Your task to perform on an android device: See recent photos Image 0: 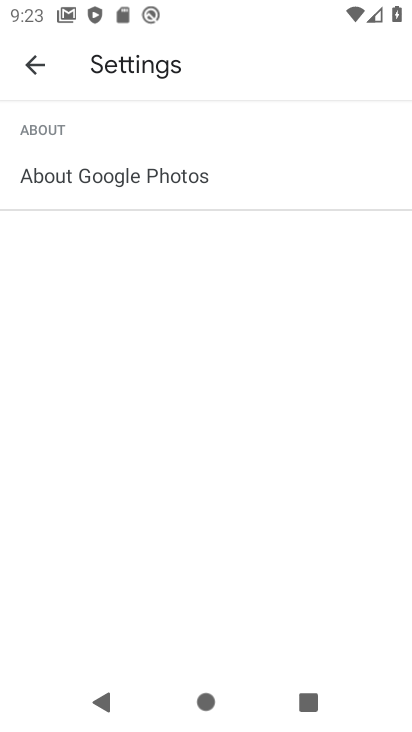
Step 0: press home button
Your task to perform on an android device: See recent photos Image 1: 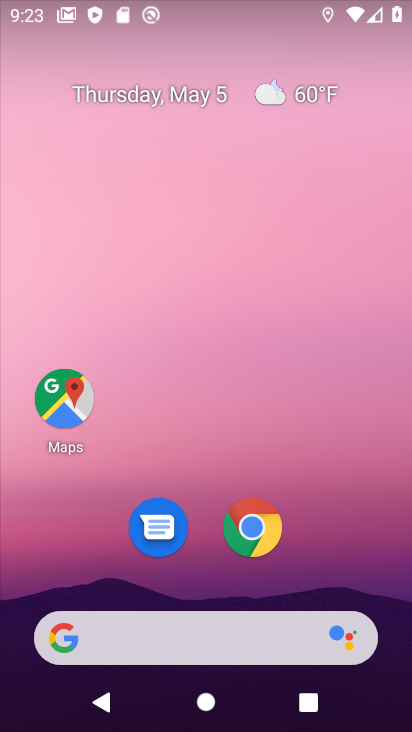
Step 1: drag from (146, 603) to (229, 137)
Your task to perform on an android device: See recent photos Image 2: 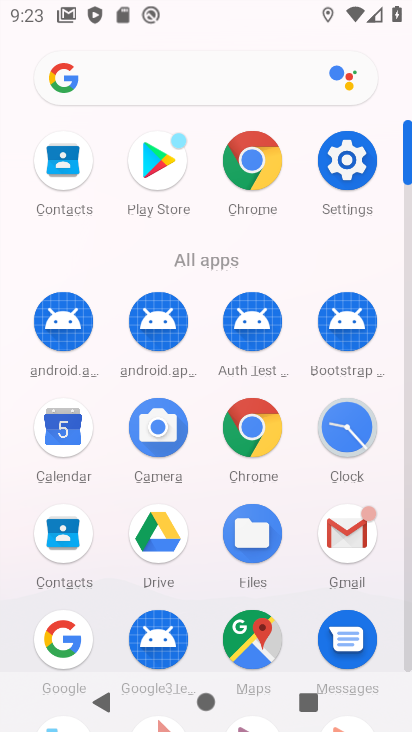
Step 2: drag from (187, 634) to (229, 388)
Your task to perform on an android device: See recent photos Image 3: 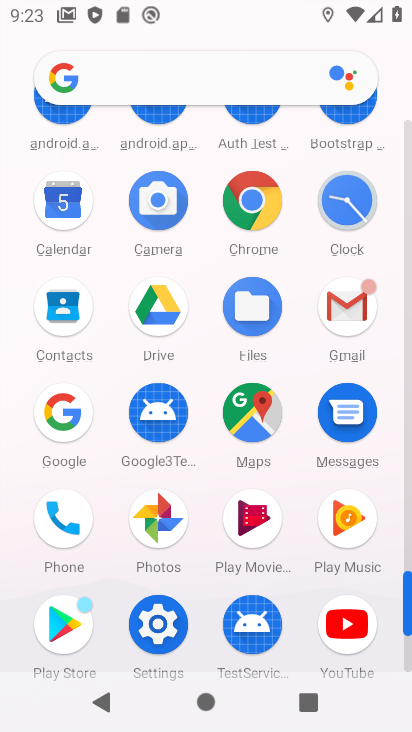
Step 3: click (156, 528)
Your task to perform on an android device: See recent photos Image 4: 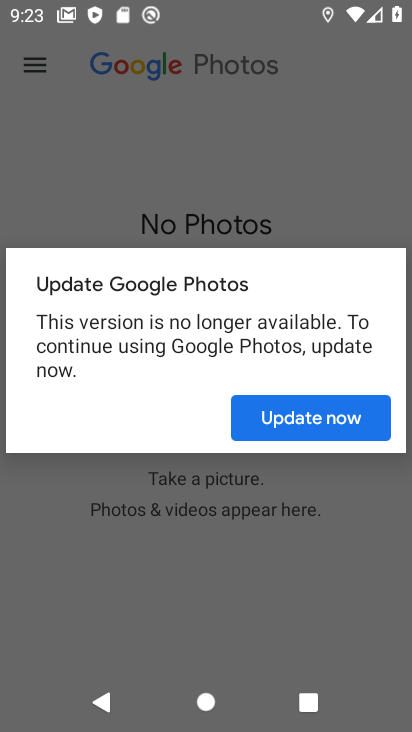
Step 4: click (317, 426)
Your task to perform on an android device: See recent photos Image 5: 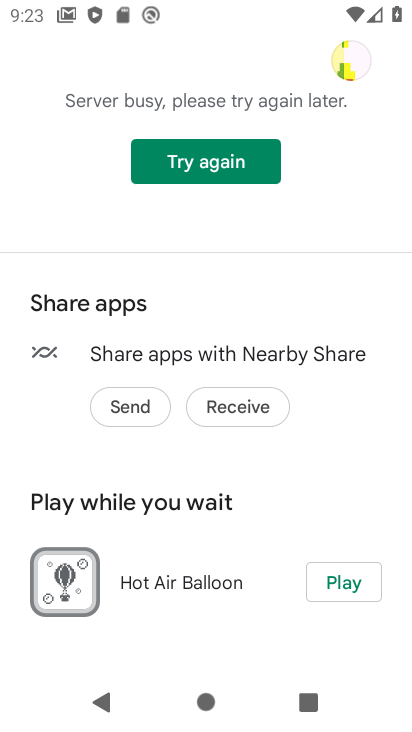
Step 5: click (233, 169)
Your task to perform on an android device: See recent photos Image 6: 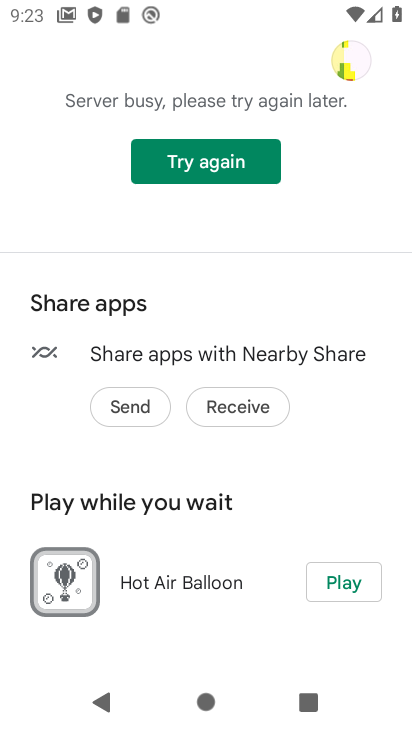
Step 6: click (233, 169)
Your task to perform on an android device: See recent photos Image 7: 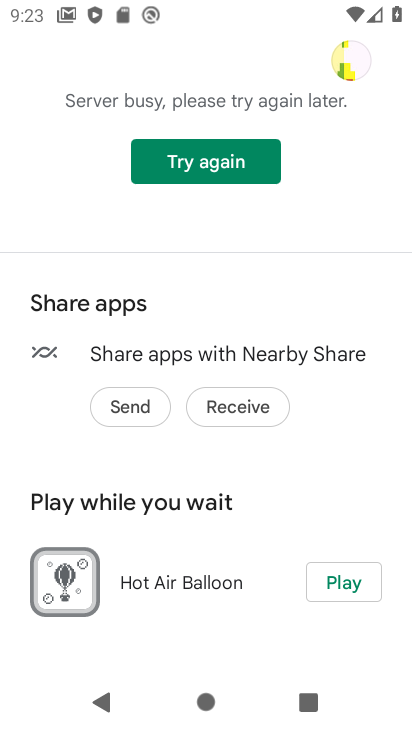
Step 7: task complete